Your task to perform on an android device: Go to eBay Image 0: 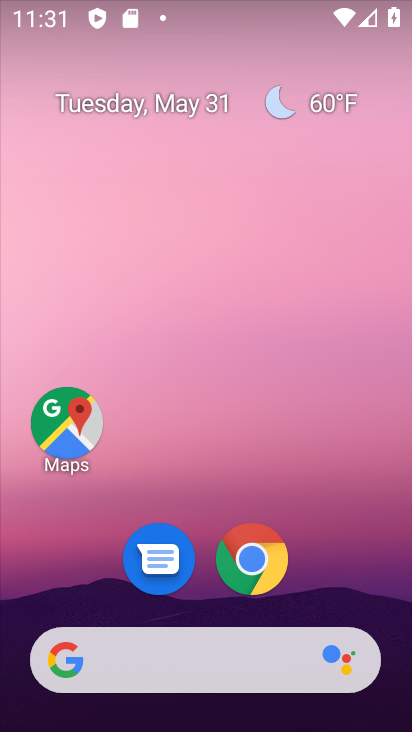
Step 0: drag from (393, 664) to (312, 107)
Your task to perform on an android device: Go to eBay Image 1: 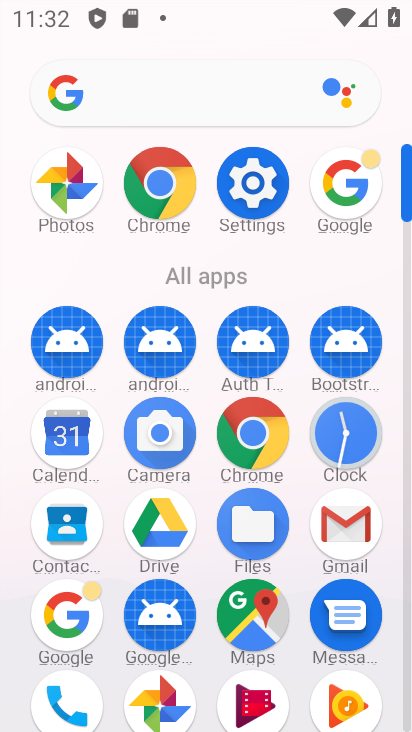
Step 1: click (70, 617)
Your task to perform on an android device: Go to eBay Image 2: 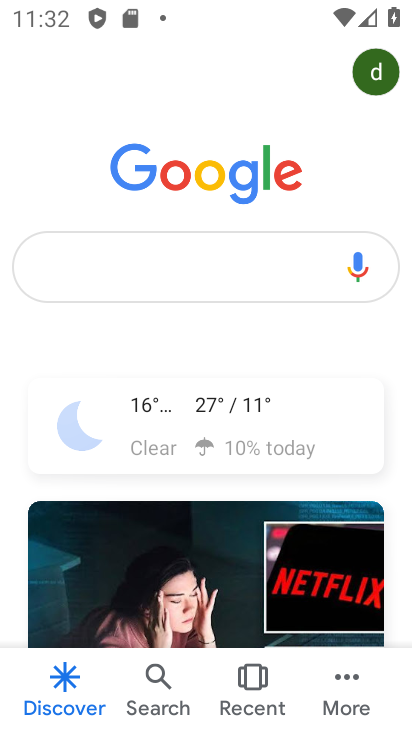
Step 2: click (165, 276)
Your task to perform on an android device: Go to eBay Image 3: 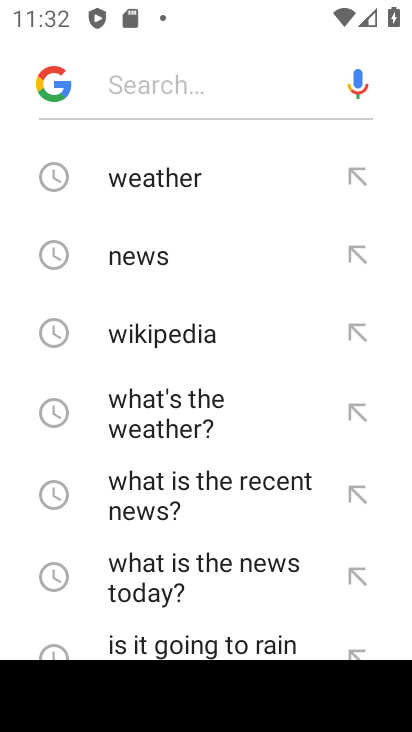
Step 3: drag from (153, 603) to (222, 128)
Your task to perform on an android device: Go to eBay Image 4: 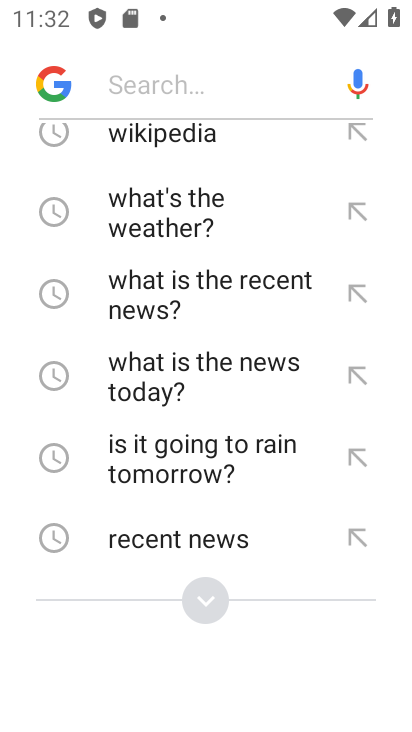
Step 4: click (208, 600)
Your task to perform on an android device: Go to eBay Image 5: 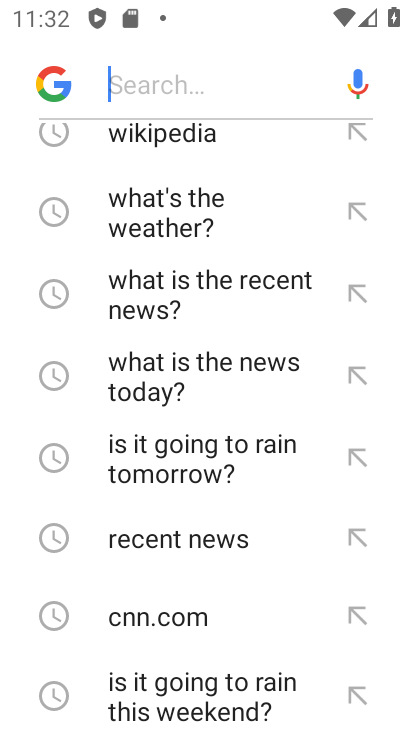
Step 5: drag from (187, 662) to (217, 153)
Your task to perform on an android device: Go to eBay Image 6: 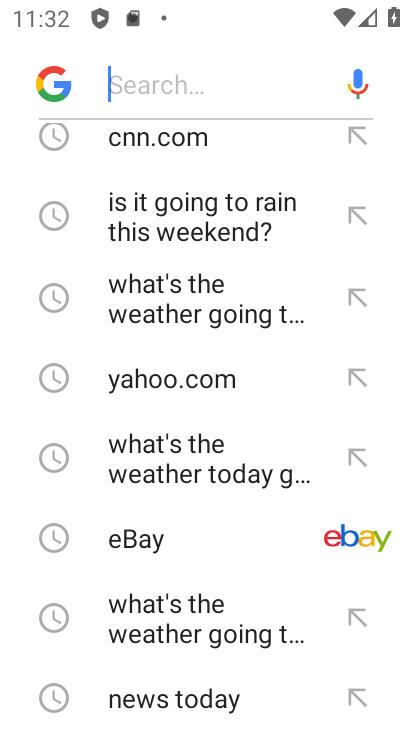
Step 6: click (196, 559)
Your task to perform on an android device: Go to eBay Image 7: 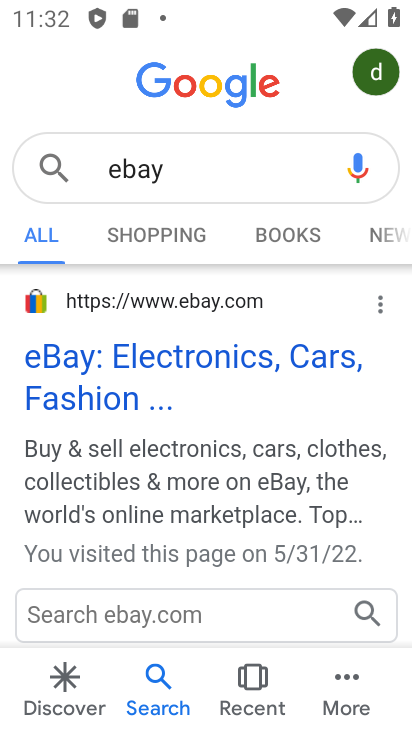
Step 7: task complete